Your task to perform on an android device: Open eBay Image 0: 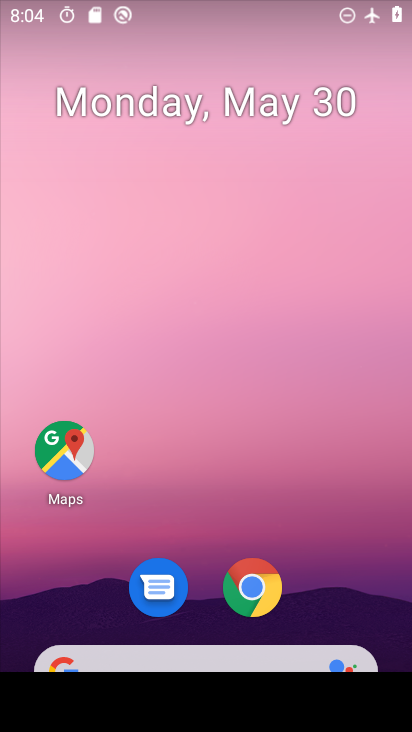
Step 0: drag from (360, 595) to (194, 31)
Your task to perform on an android device: Open eBay Image 1: 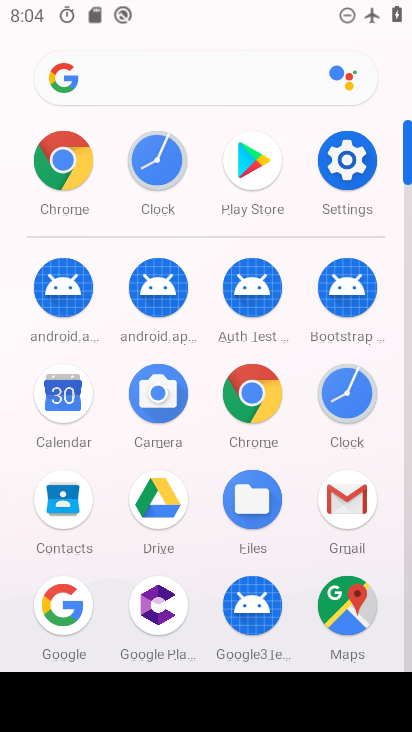
Step 1: drag from (15, 525) to (20, 205)
Your task to perform on an android device: Open eBay Image 2: 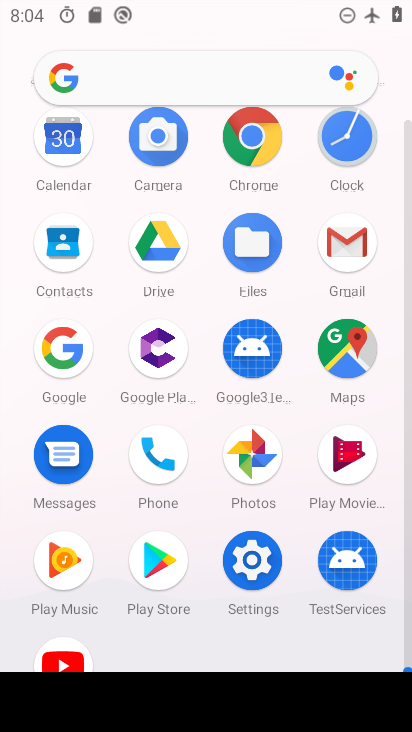
Step 2: click (251, 134)
Your task to perform on an android device: Open eBay Image 3: 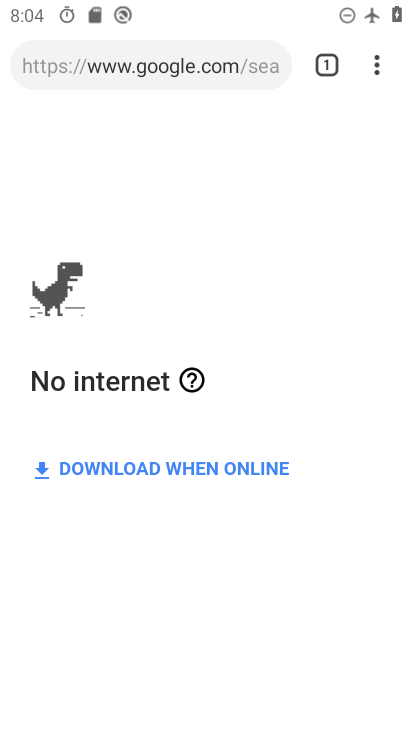
Step 3: click (172, 56)
Your task to perform on an android device: Open eBay Image 4: 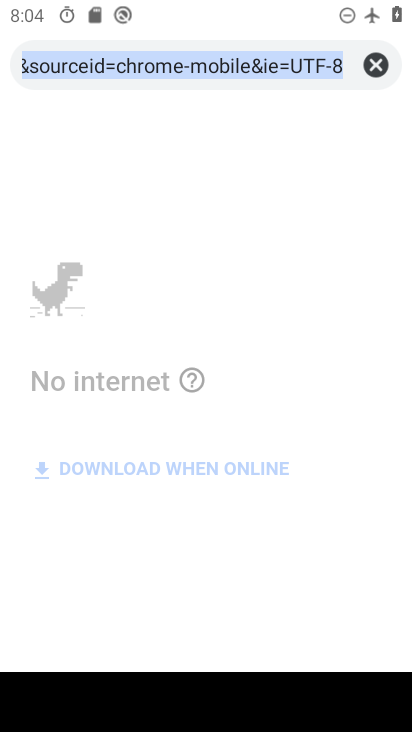
Step 4: click (375, 68)
Your task to perform on an android device: Open eBay Image 5: 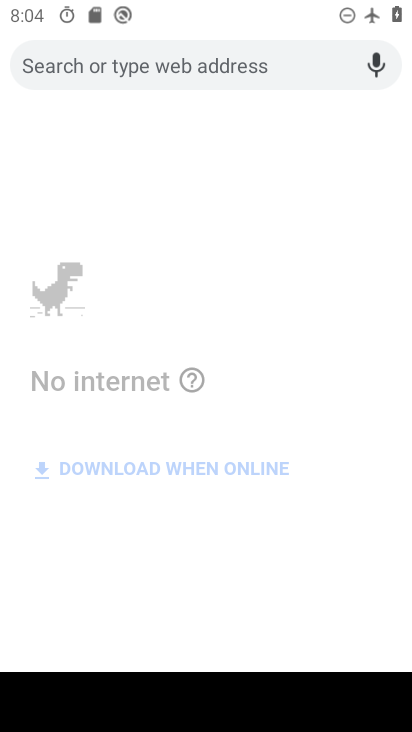
Step 5: type " eBay"
Your task to perform on an android device: Open eBay Image 6: 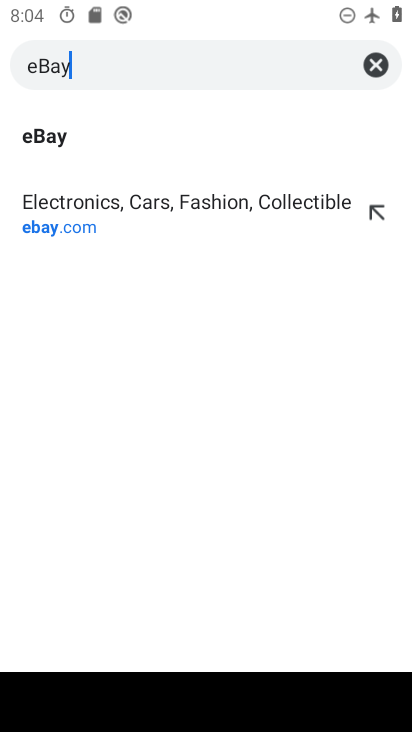
Step 6: type ""
Your task to perform on an android device: Open eBay Image 7: 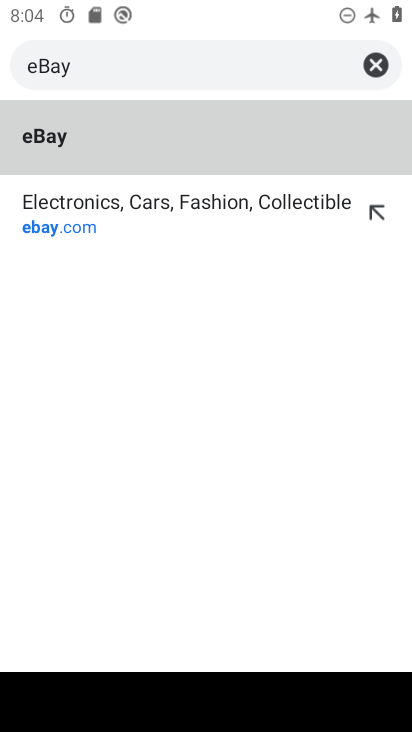
Step 7: click (85, 215)
Your task to perform on an android device: Open eBay Image 8: 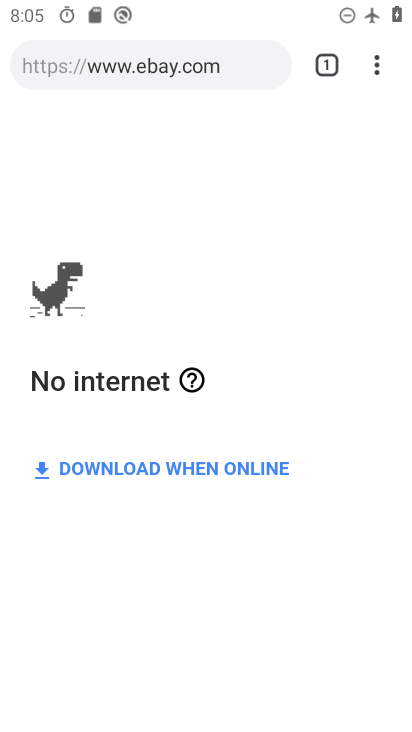
Step 8: task complete